Your task to perform on an android device: Go to internet settings Image 0: 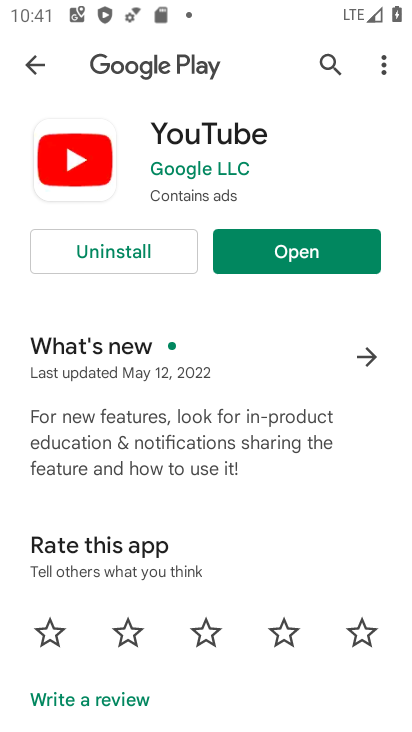
Step 0: press home button
Your task to perform on an android device: Go to internet settings Image 1: 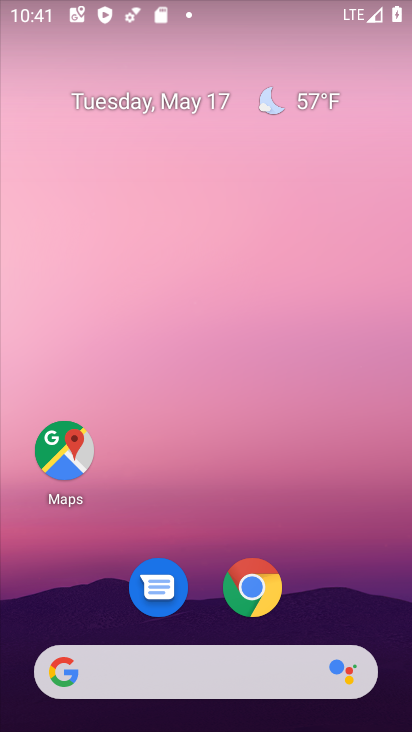
Step 1: drag from (378, 601) to (283, 75)
Your task to perform on an android device: Go to internet settings Image 2: 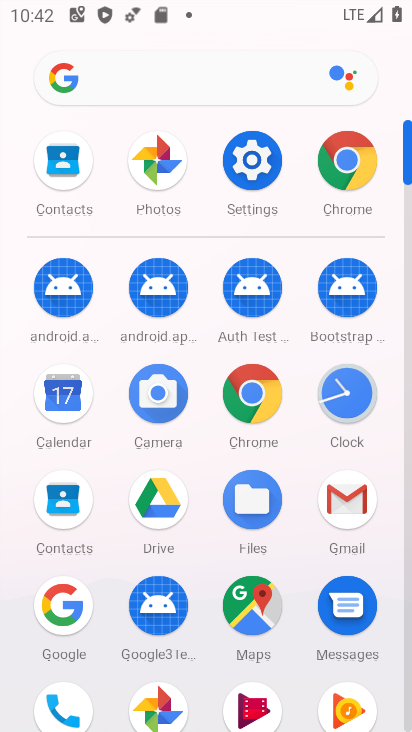
Step 2: click (260, 162)
Your task to perform on an android device: Go to internet settings Image 3: 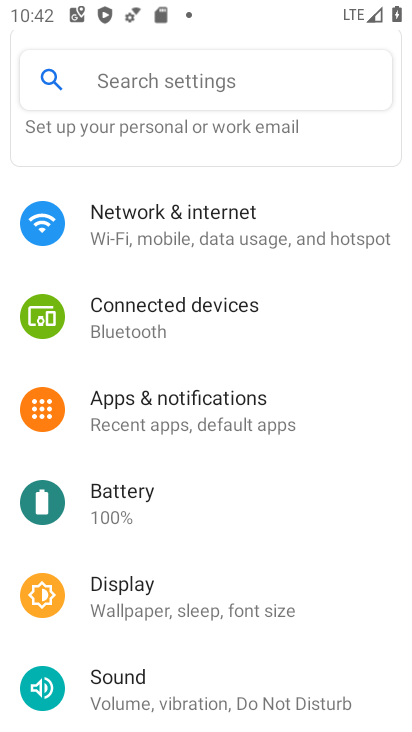
Step 3: click (186, 237)
Your task to perform on an android device: Go to internet settings Image 4: 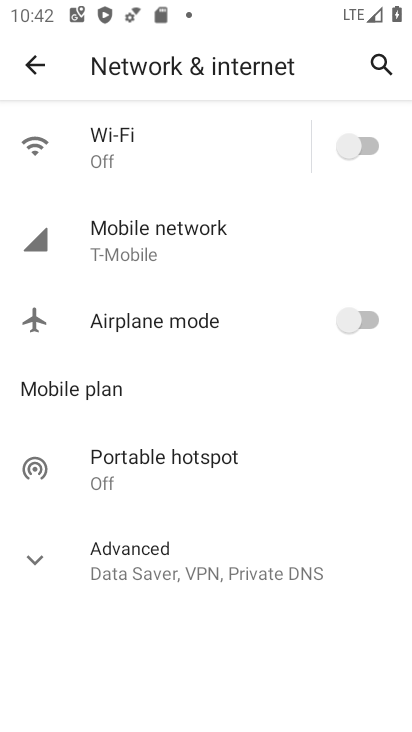
Step 4: task complete